Your task to perform on an android device: open app "ZOOM Cloud Meetings" (install if not already installed) and enter user name: "bauxite@icloud.com" and password: "dim" Image 0: 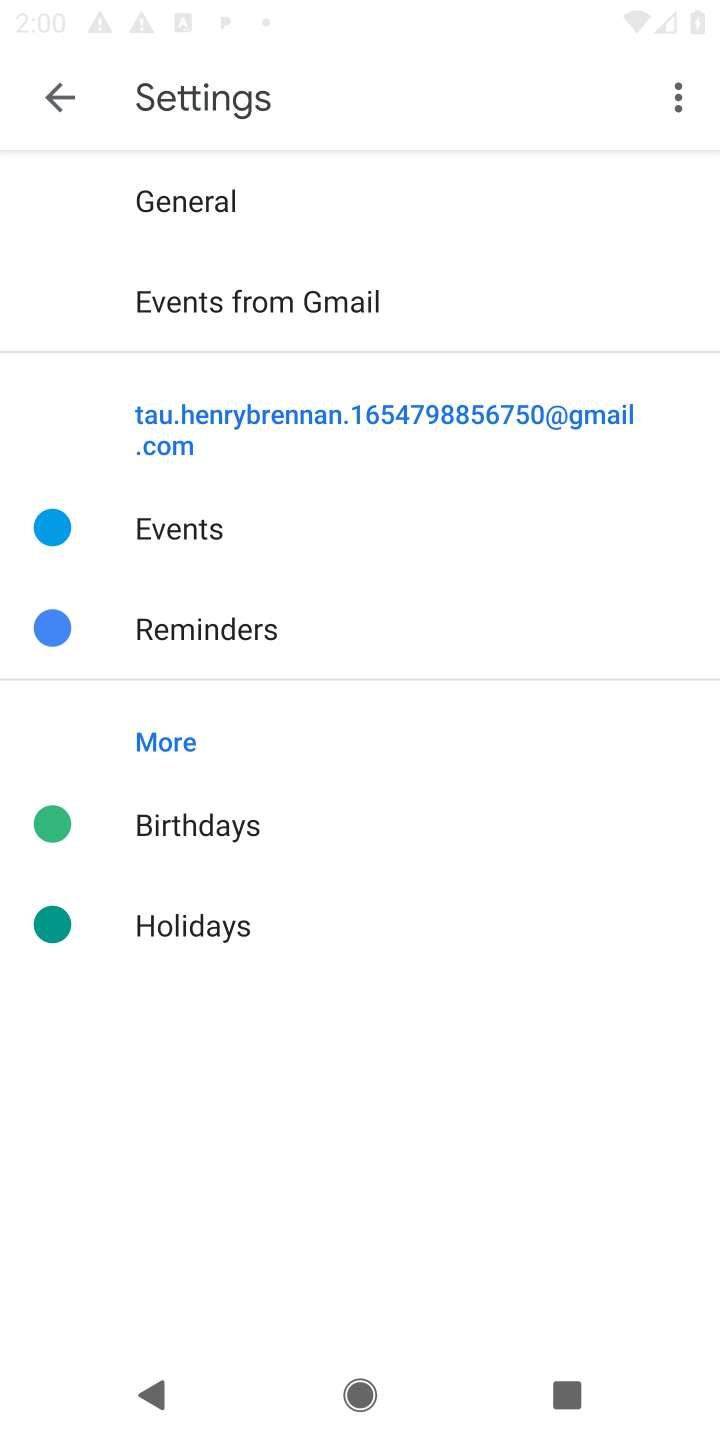
Step 0: press home button
Your task to perform on an android device: open app "ZOOM Cloud Meetings" (install if not already installed) and enter user name: "bauxite@icloud.com" and password: "dim" Image 1: 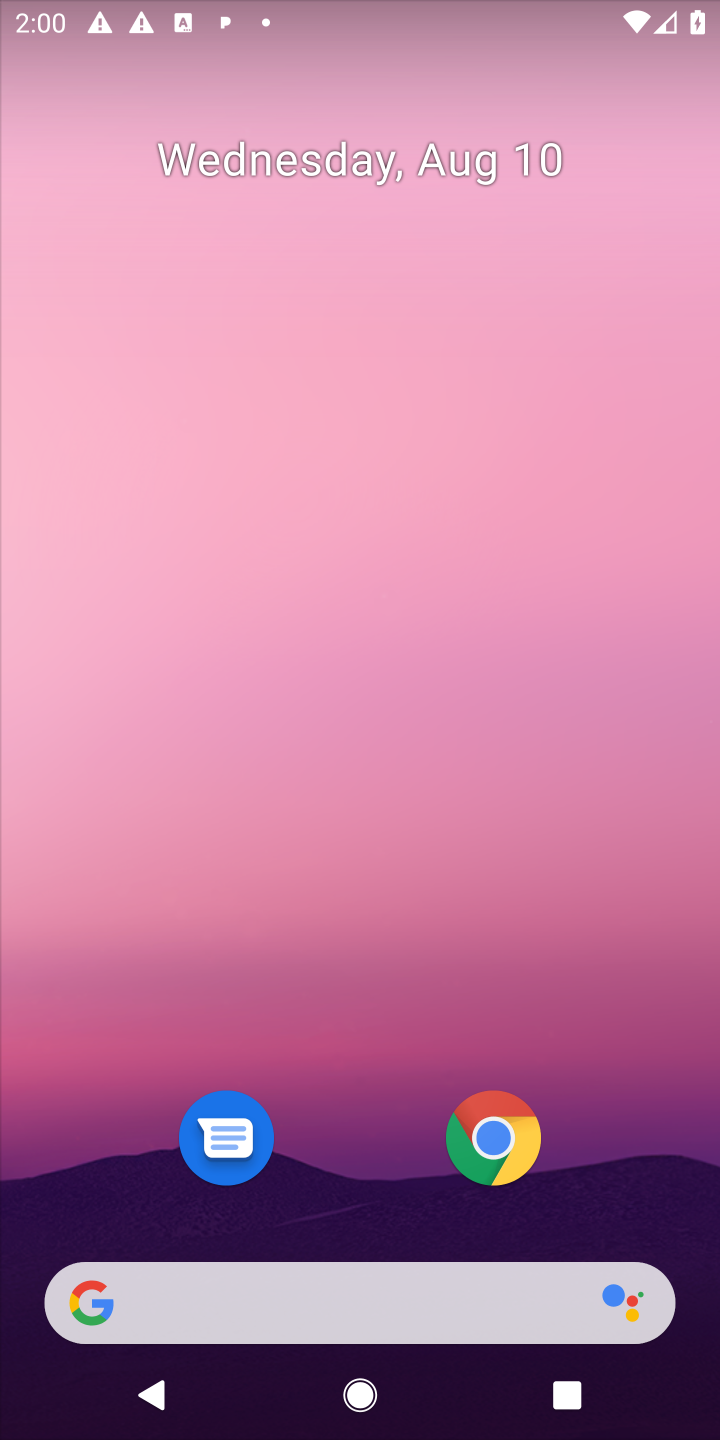
Step 1: press home button
Your task to perform on an android device: open app "ZOOM Cloud Meetings" (install if not already installed) and enter user name: "bauxite@icloud.com" and password: "dim" Image 2: 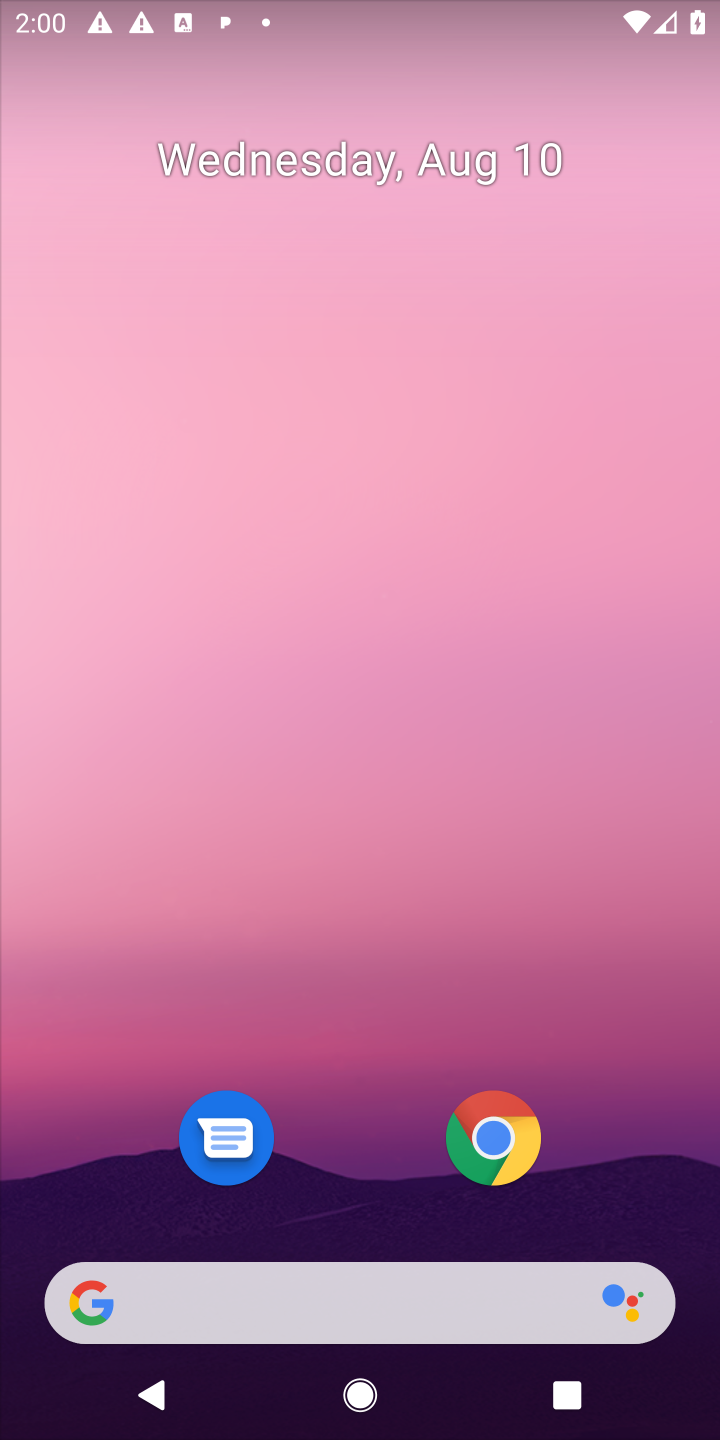
Step 2: drag from (611, 1010) to (644, 69)
Your task to perform on an android device: open app "ZOOM Cloud Meetings" (install if not already installed) and enter user name: "bauxite@icloud.com" and password: "dim" Image 3: 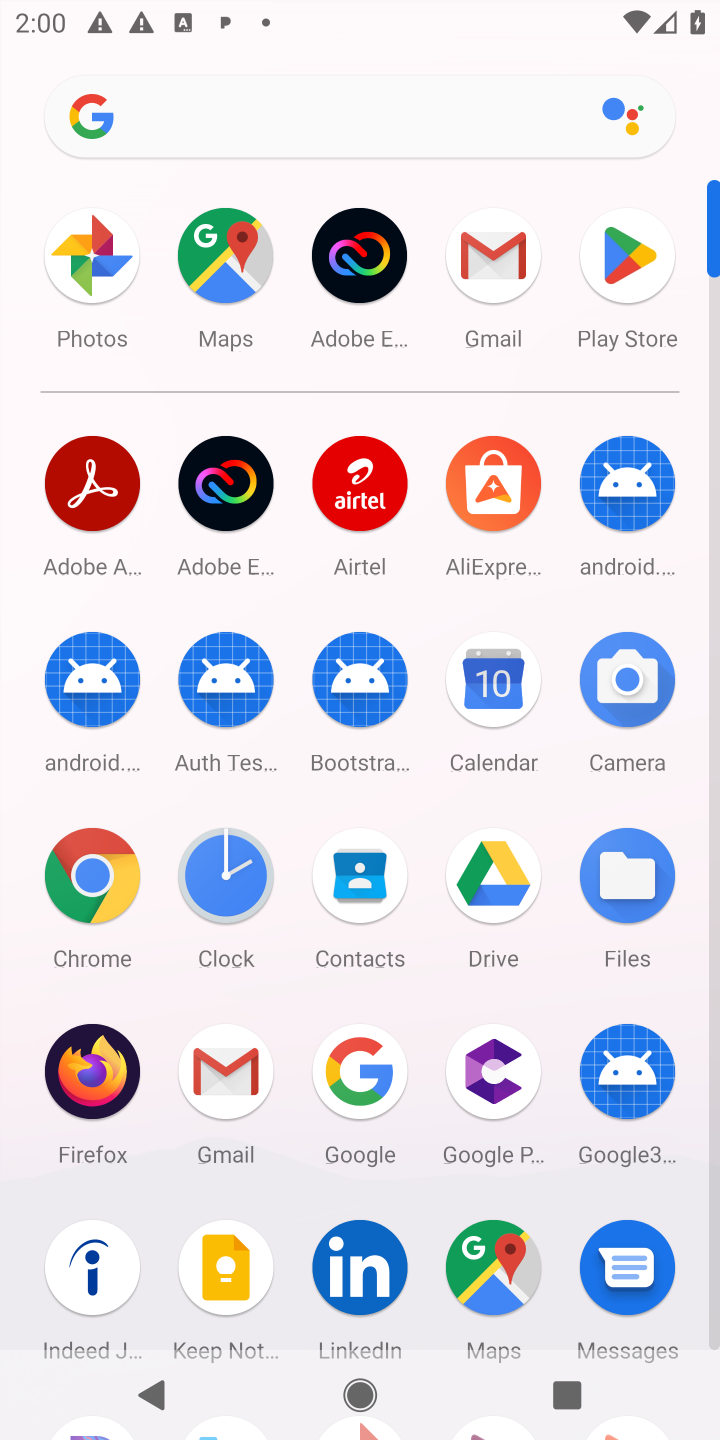
Step 3: click (639, 259)
Your task to perform on an android device: open app "ZOOM Cloud Meetings" (install if not already installed) and enter user name: "bauxite@icloud.com" and password: "dim" Image 4: 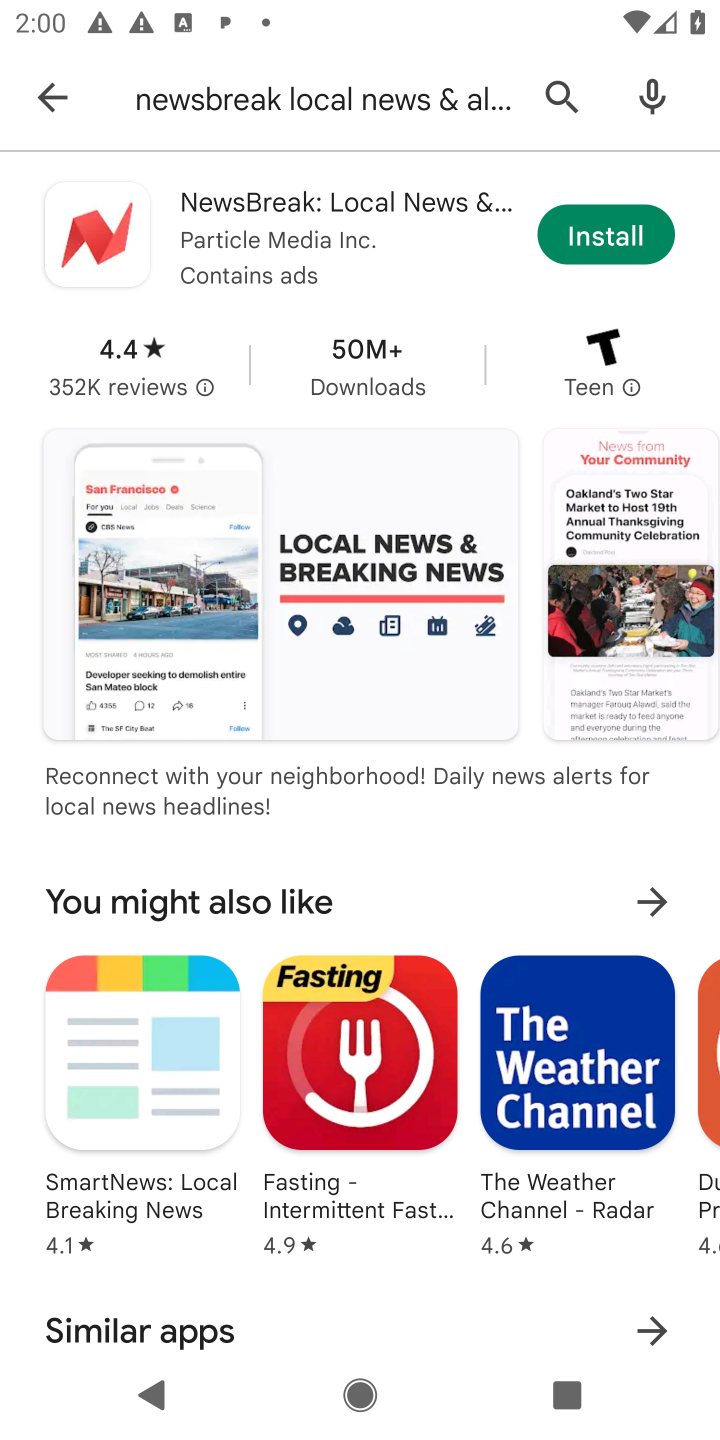
Step 4: click (555, 86)
Your task to perform on an android device: open app "ZOOM Cloud Meetings" (install if not already installed) and enter user name: "bauxite@icloud.com" and password: "dim" Image 5: 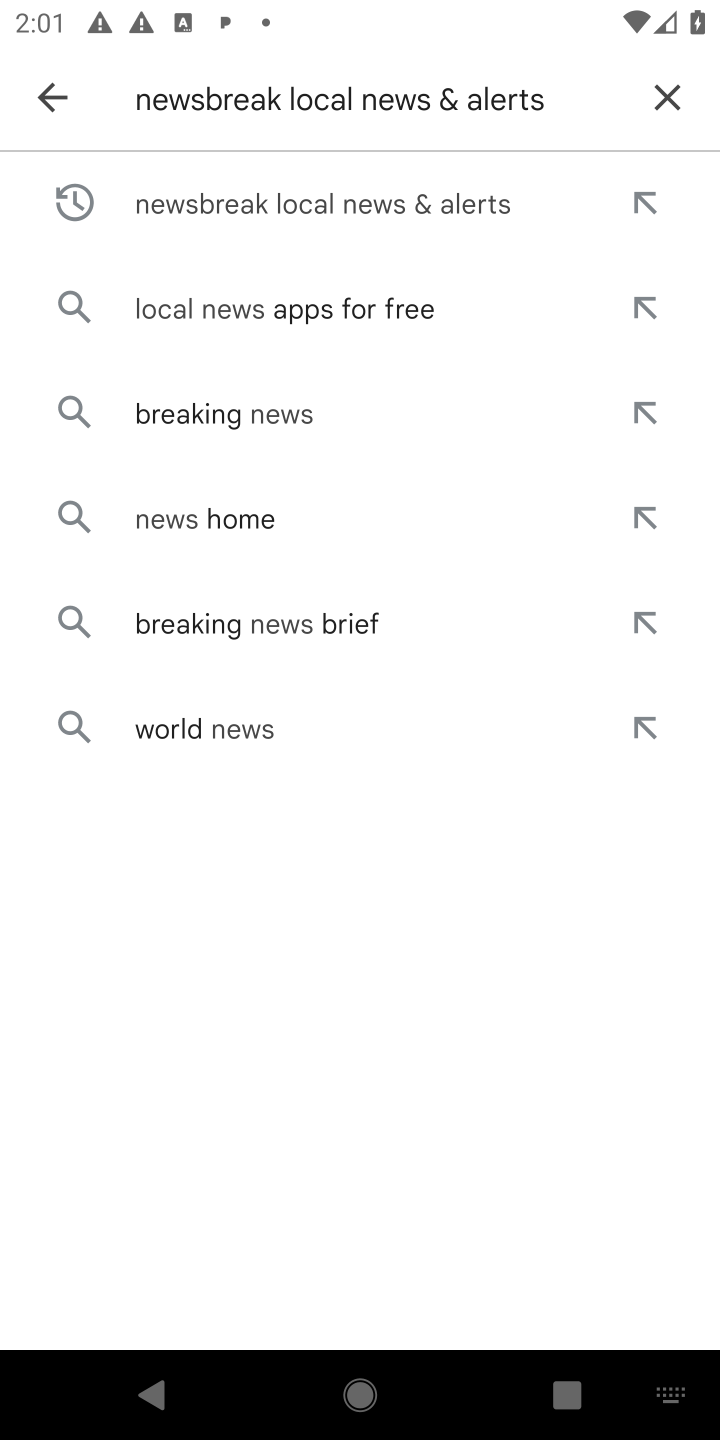
Step 5: click (663, 93)
Your task to perform on an android device: open app "ZOOM Cloud Meetings" (install if not already installed) and enter user name: "bauxite@icloud.com" and password: "dim" Image 6: 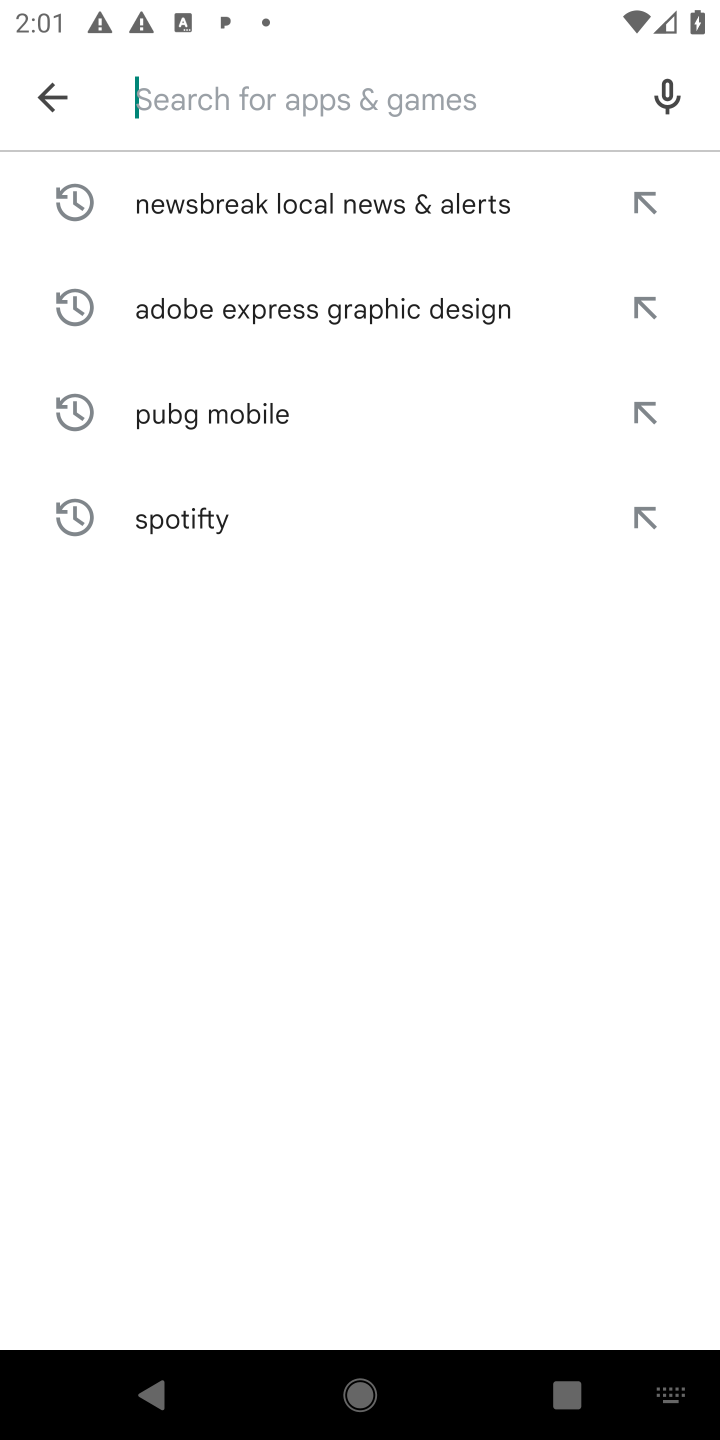
Step 6: type "ZOOM Cloud Meetings"
Your task to perform on an android device: open app "ZOOM Cloud Meetings" (install if not already installed) and enter user name: "bauxite@icloud.com" and password: "dim" Image 7: 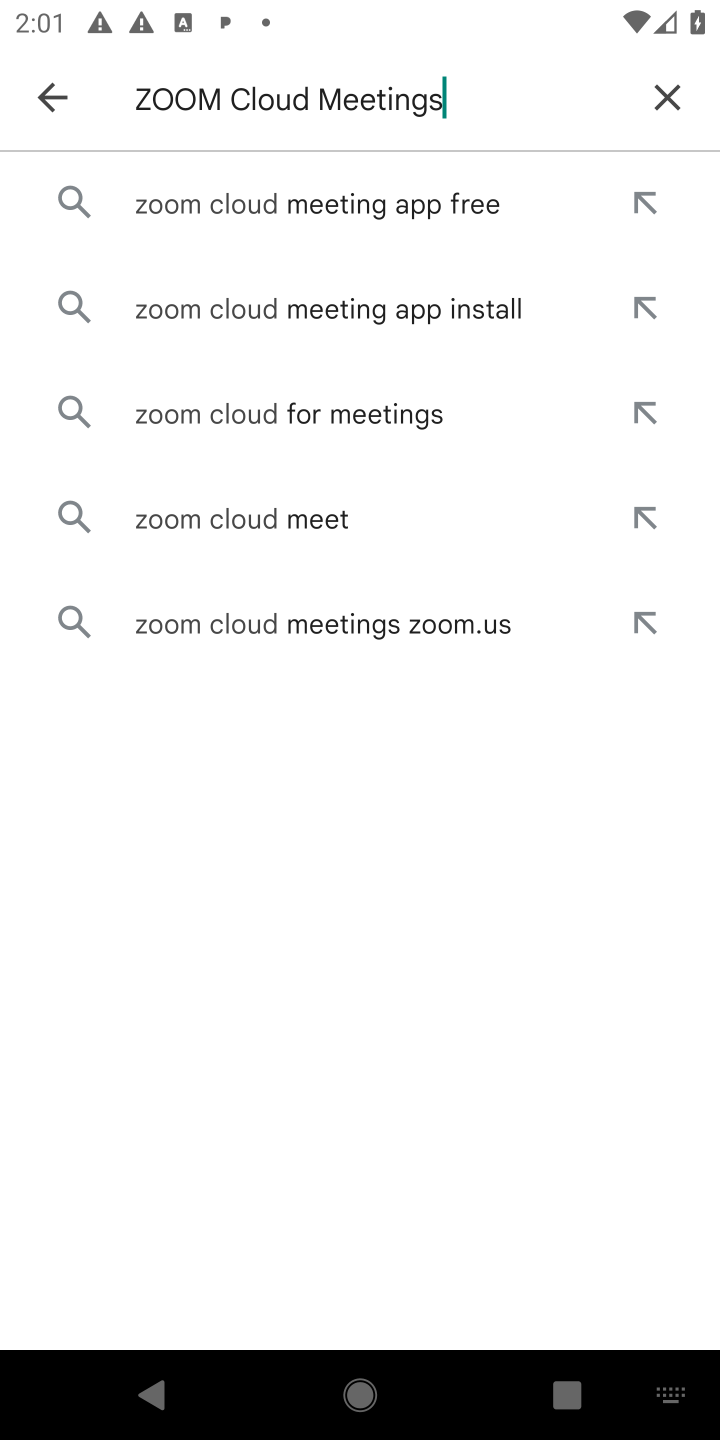
Step 7: press enter
Your task to perform on an android device: open app "ZOOM Cloud Meetings" (install if not already installed) and enter user name: "bauxite@icloud.com" and password: "dim" Image 8: 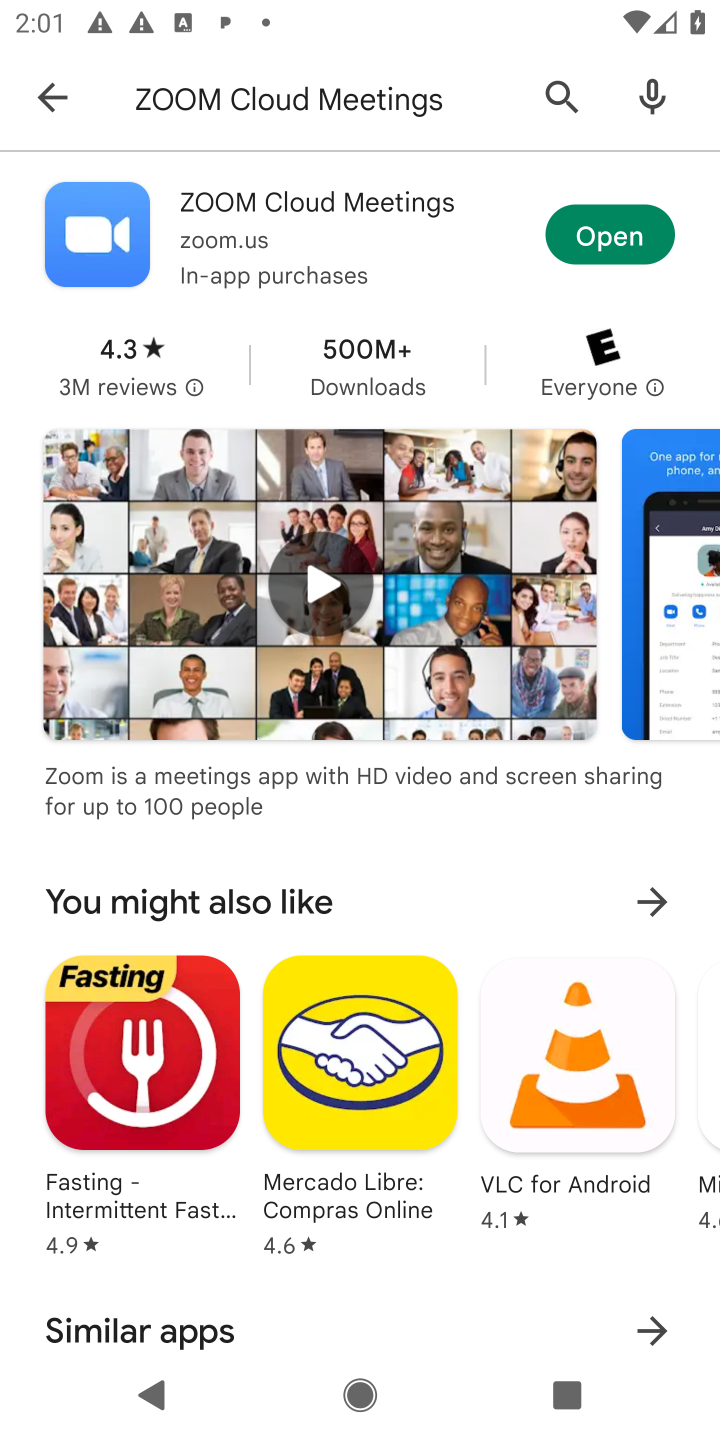
Step 8: click (625, 229)
Your task to perform on an android device: open app "ZOOM Cloud Meetings" (install if not already installed) and enter user name: "bauxite@icloud.com" and password: "dim" Image 9: 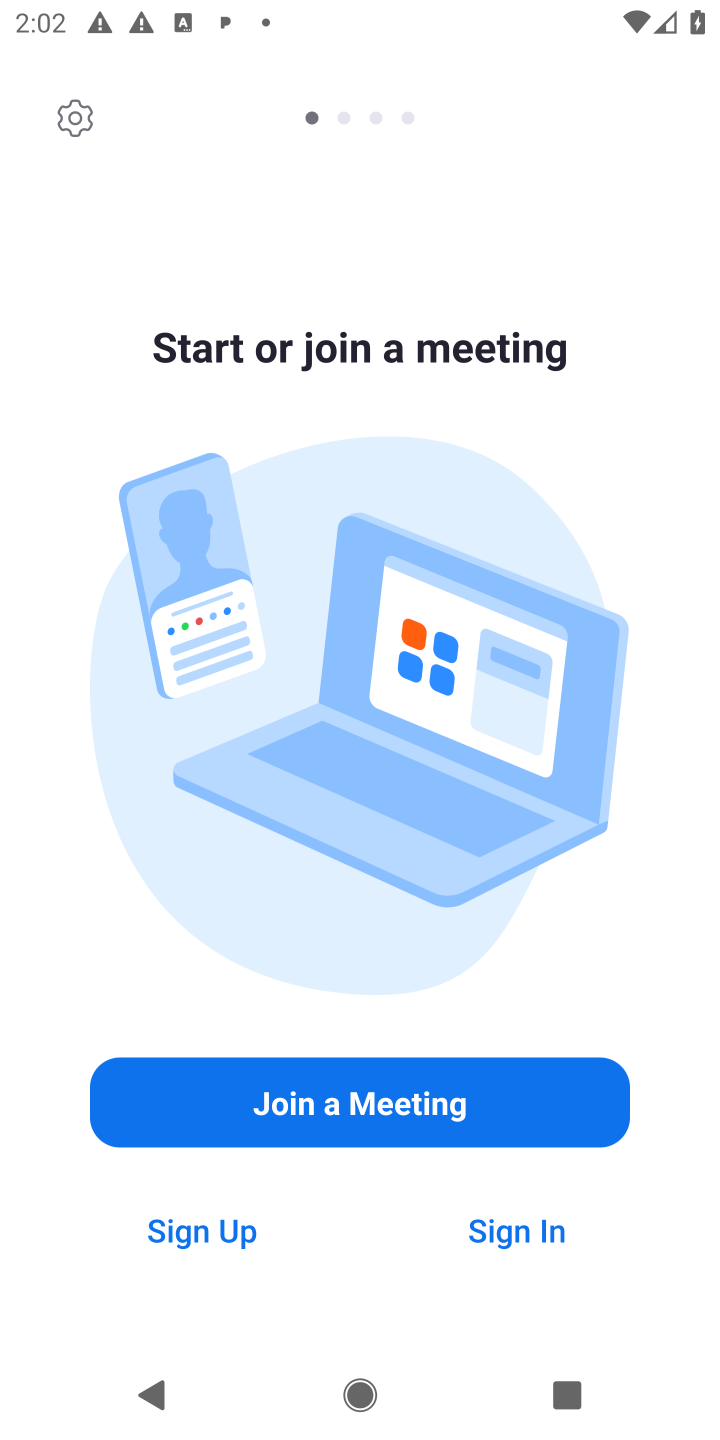
Step 9: click (523, 1226)
Your task to perform on an android device: open app "ZOOM Cloud Meetings" (install if not already installed) and enter user name: "bauxite@icloud.com" and password: "dim" Image 10: 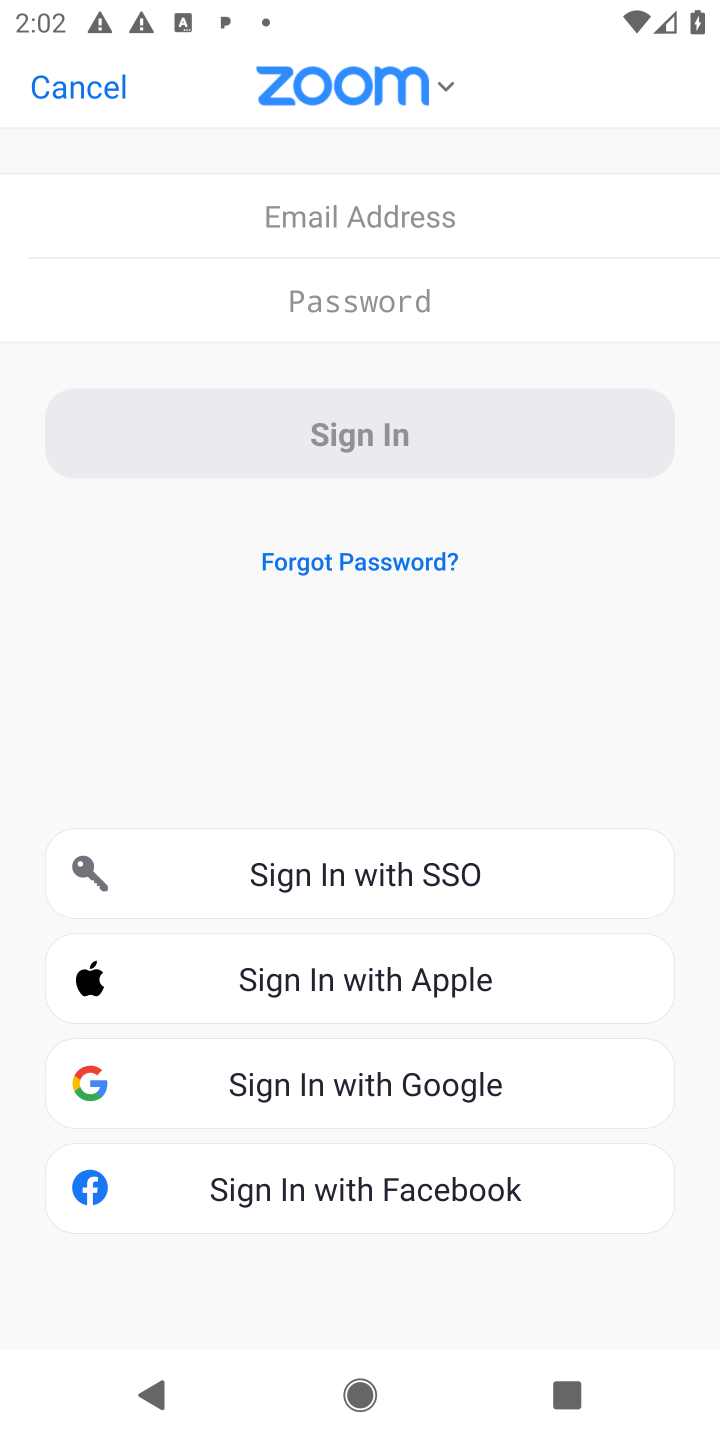
Step 10: click (389, 217)
Your task to perform on an android device: open app "ZOOM Cloud Meetings" (install if not already installed) and enter user name: "bauxite@icloud.com" and password: "dim" Image 11: 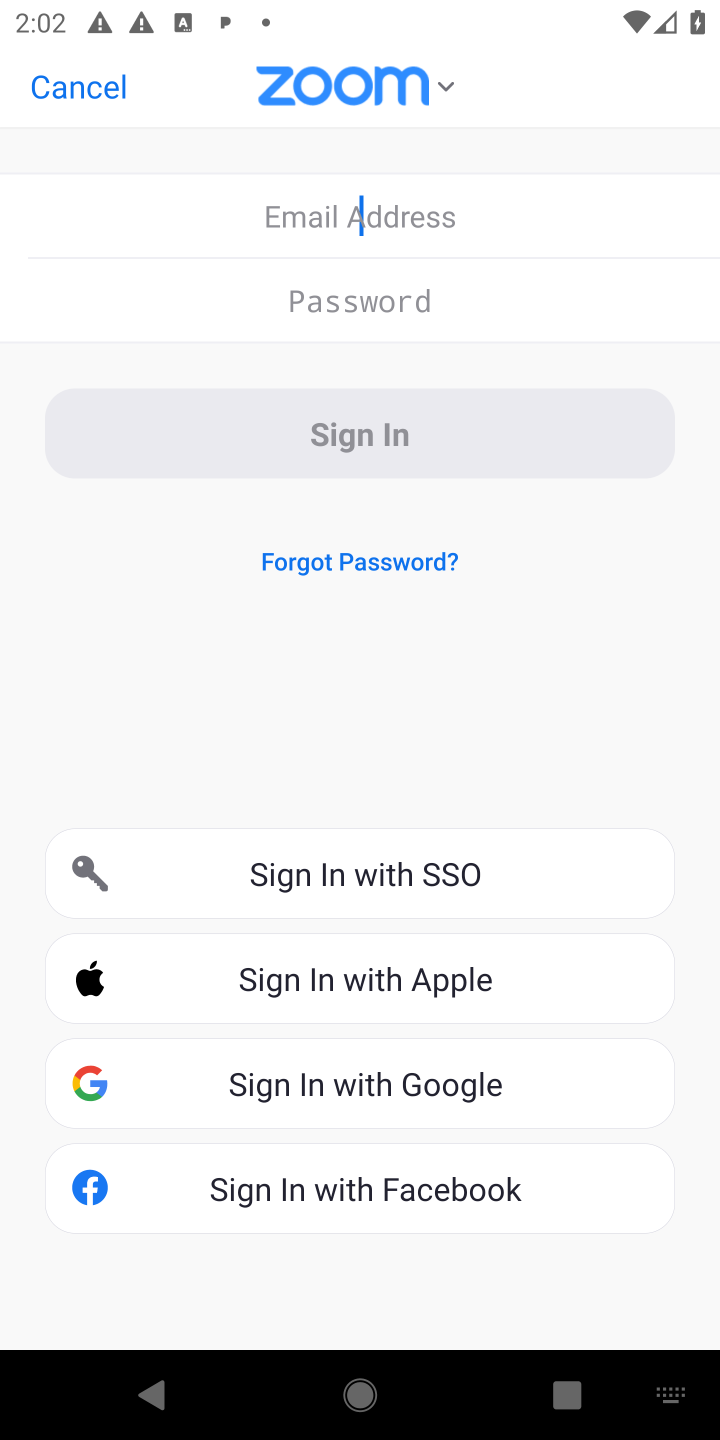
Step 11: type "bauxite@icloud.com"
Your task to perform on an android device: open app "ZOOM Cloud Meetings" (install if not already installed) and enter user name: "bauxite@icloud.com" and password: "dim" Image 12: 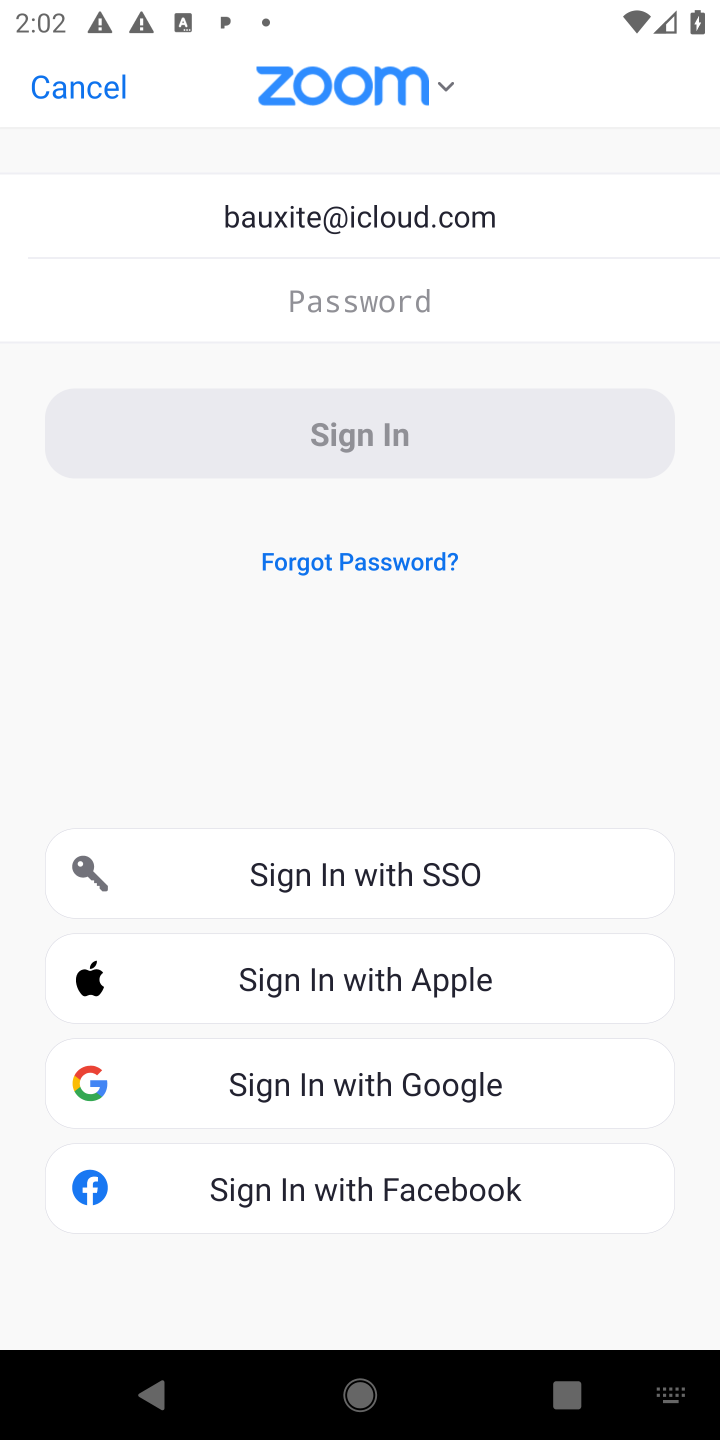
Step 12: click (484, 294)
Your task to perform on an android device: open app "ZOOM Cloud Meetings" (install if not already installed) and enter user name: "bauxite@icloud.com" and password: "dim" Image 13: 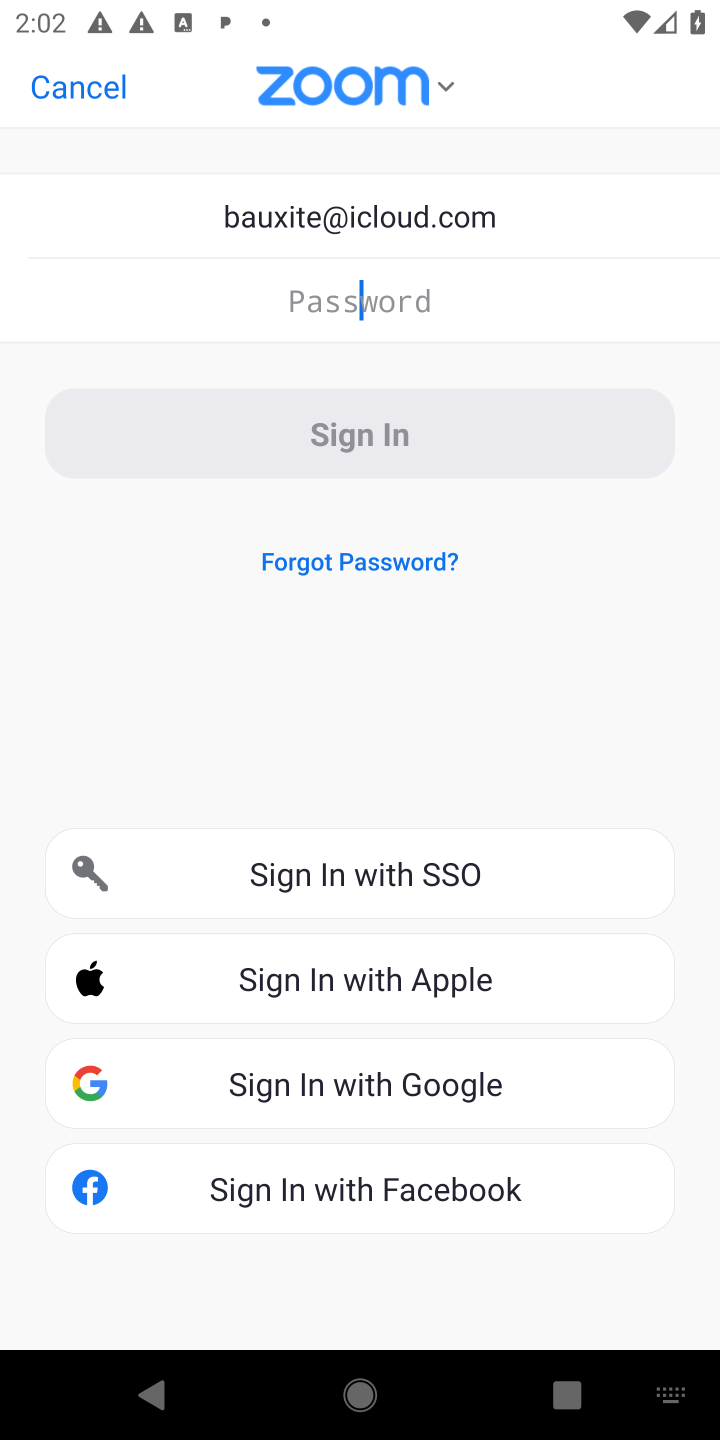
Step 13: type "dim"
Your task to perform on an android device: open app "ZOOM Cloud Meetings" (install if not already installed) and enter user name: "bauxite@icloud.com" and password: "dim" Image 14: 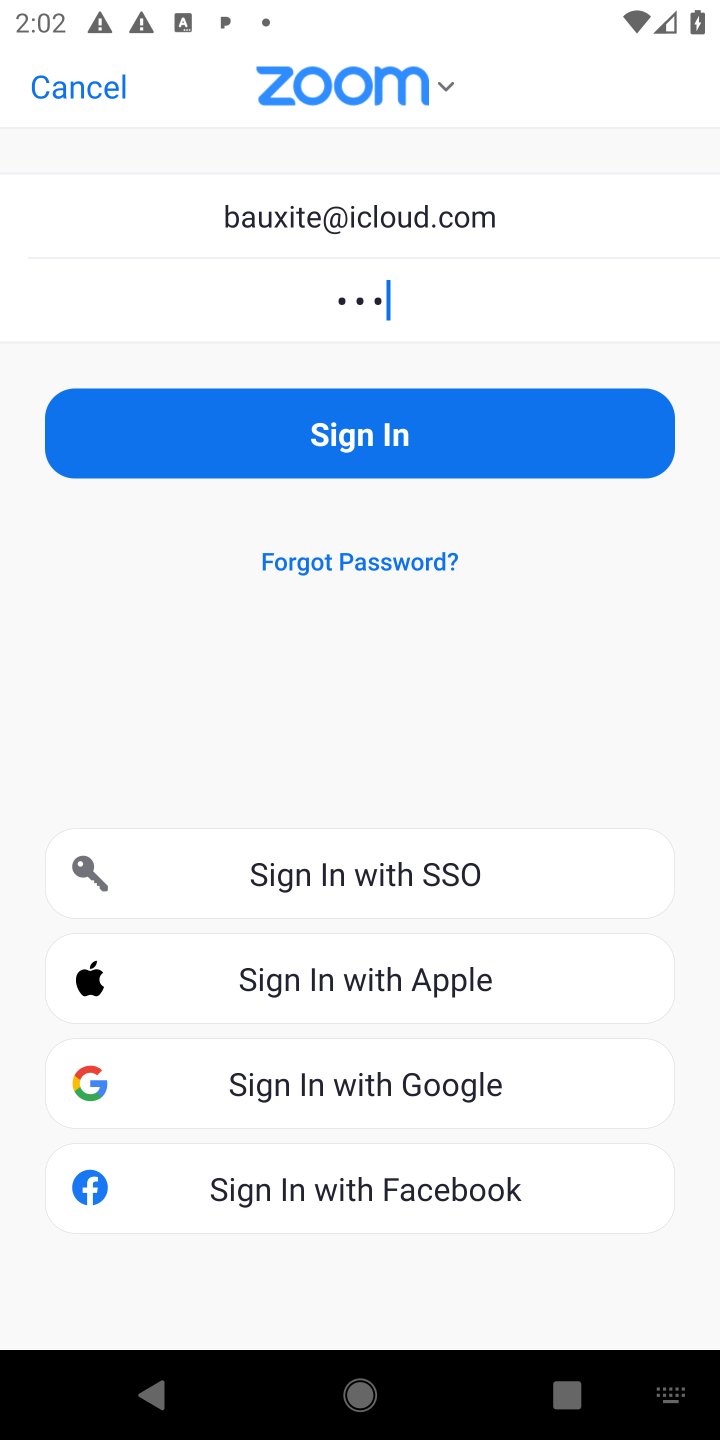
Step 14: task complete